Your task to perform on an android device: see creations saved in the google photos Image 0: 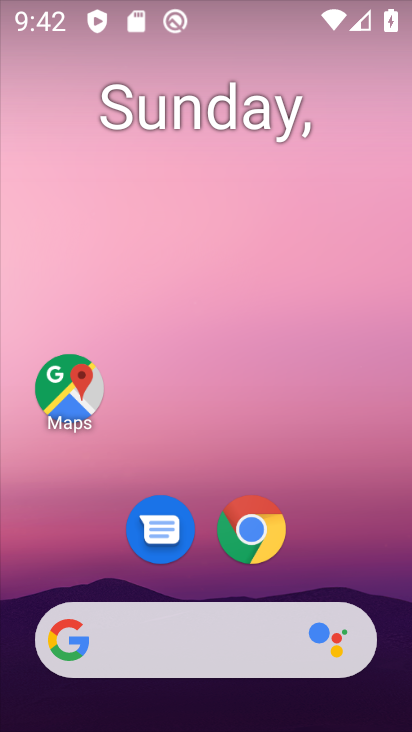
Step 0: drag from (123, 579) to (243, 71)
Your task to perform on an android device: see creations saved in the google photos Image 1: 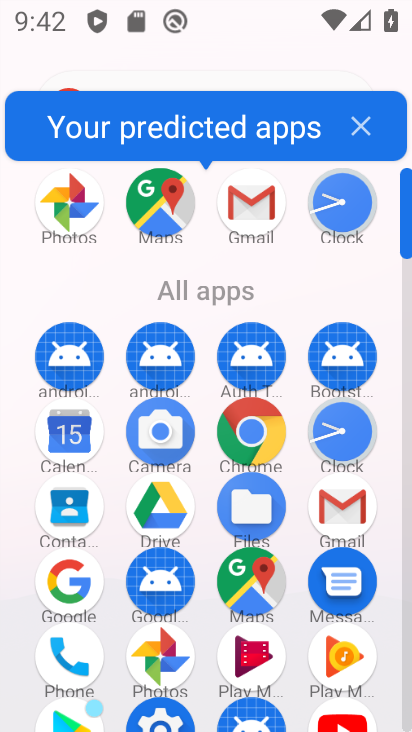
Step 1: click (175, 670)
Your task to perform on an android device: see creations saved in the google photos Image 2: 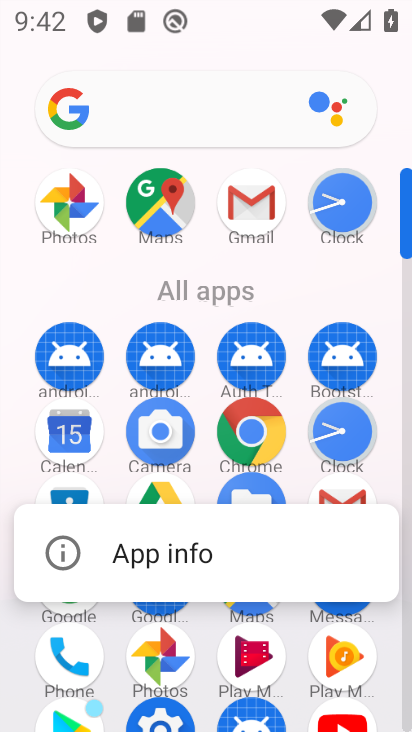
Step 2: click (167, 655)
Your task to perform on an android device: see creations saved in the google photos Image 3: 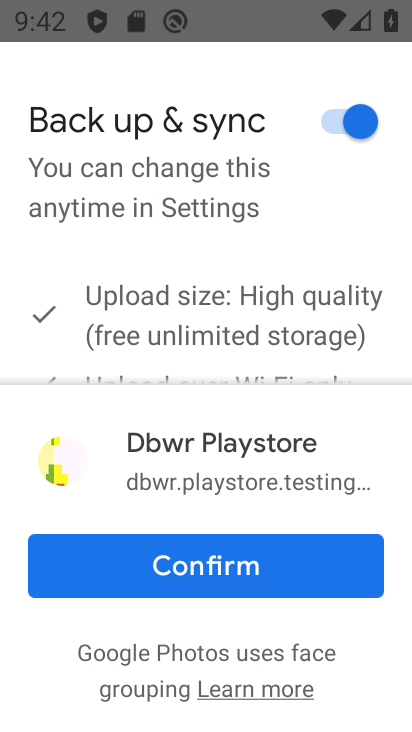
Step 3: click (205, 574)
Your task to perform on an android device: see creations saved in the google photos Image 4: 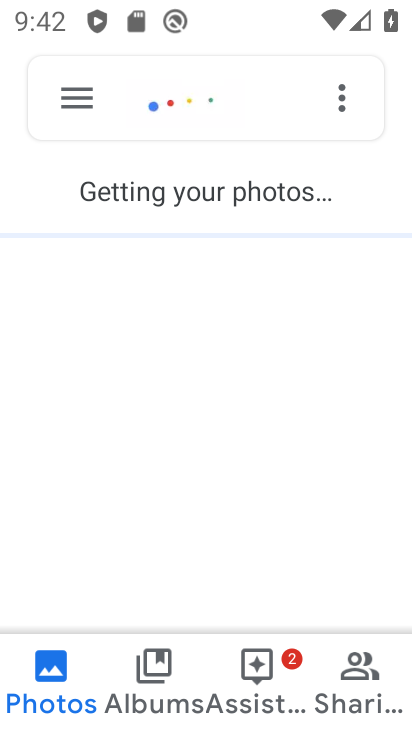
Step 4: click (184, 118)
Your task to perform on an android device: see creations saved in the google photos Image 5: 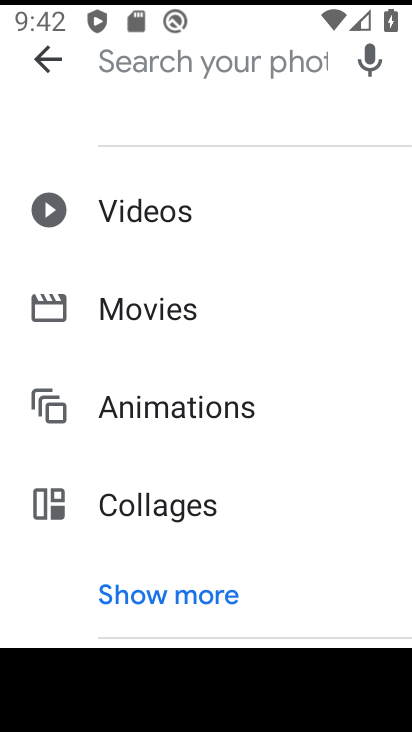
Step 5: click (188, 602)
Your task to perform on an android device: see creations saved in the google photos Image 6: 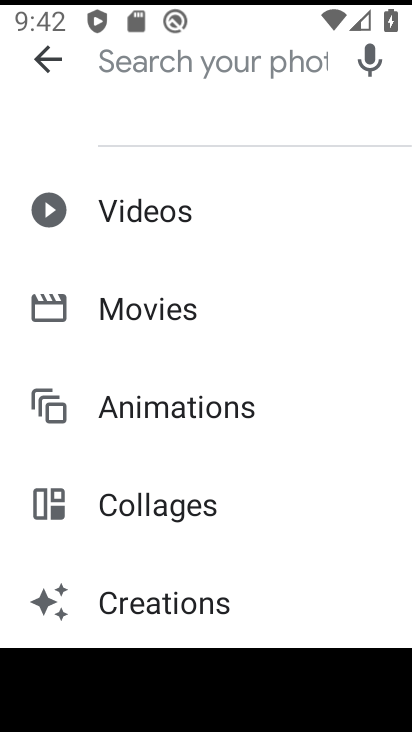
Step 6: click (188, 599)
Your task to perform on an android device: see creations saved in the google photos Image 7: 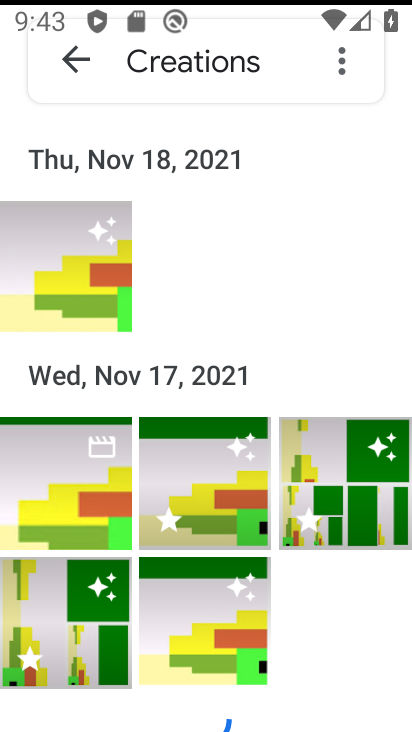
Step 7: task complete